Your task to perform on an android device: Open Google Chrome and click the shortcut for Amazon.com Image 0: 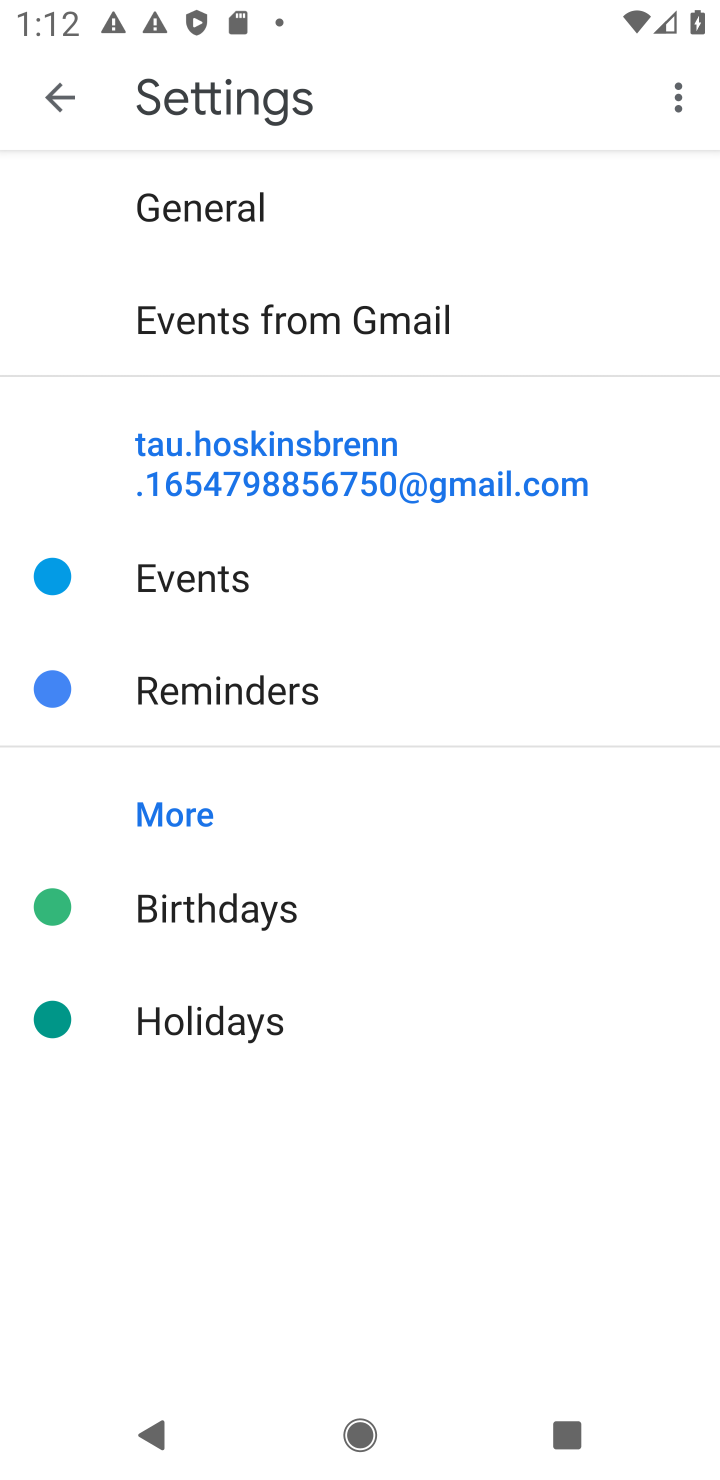
Step 0: press home button
Your task to perform on an android device: Open Google Chrome and click the shortcut for Amazon.com Image 1: 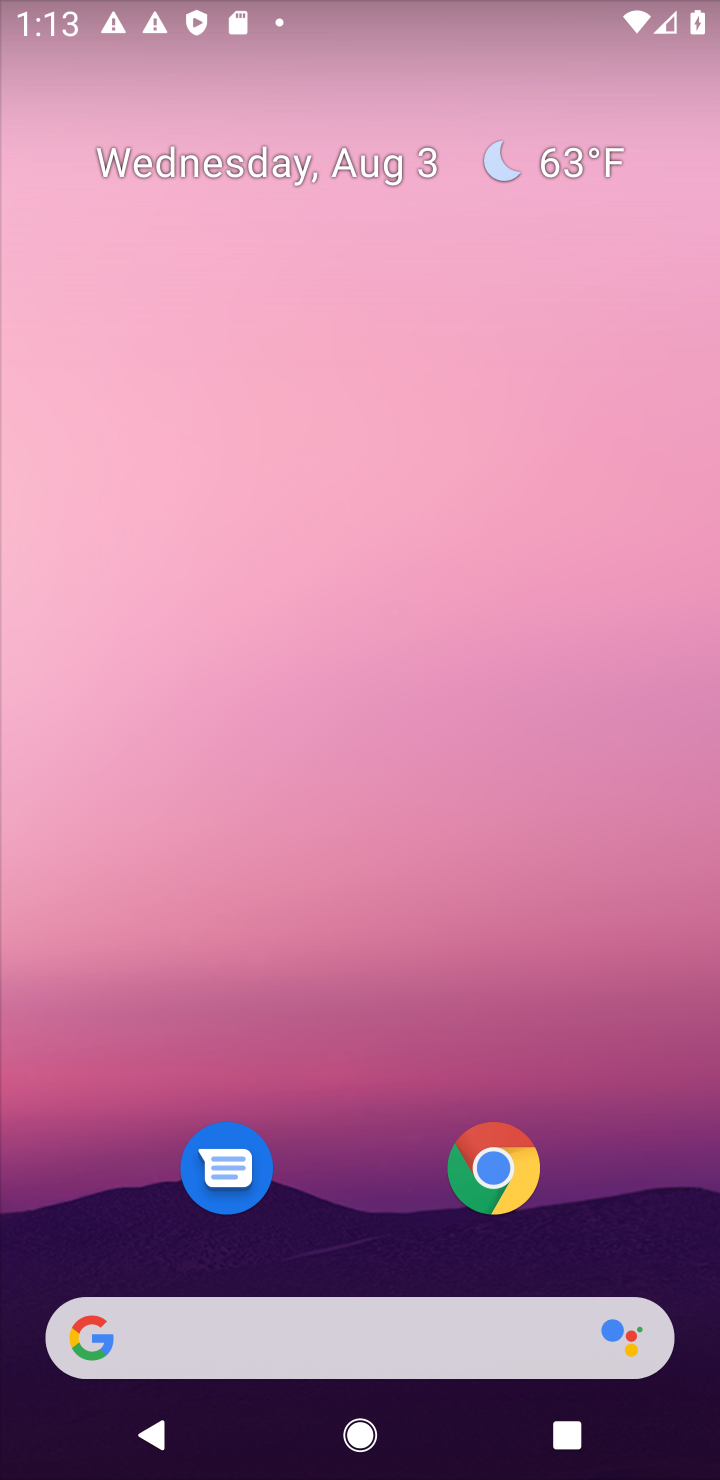
Step 1: click (493, 1174)
Your task to perform on an android device: Open Google Chrome and click the shortcut for Amazon.com Image 2: 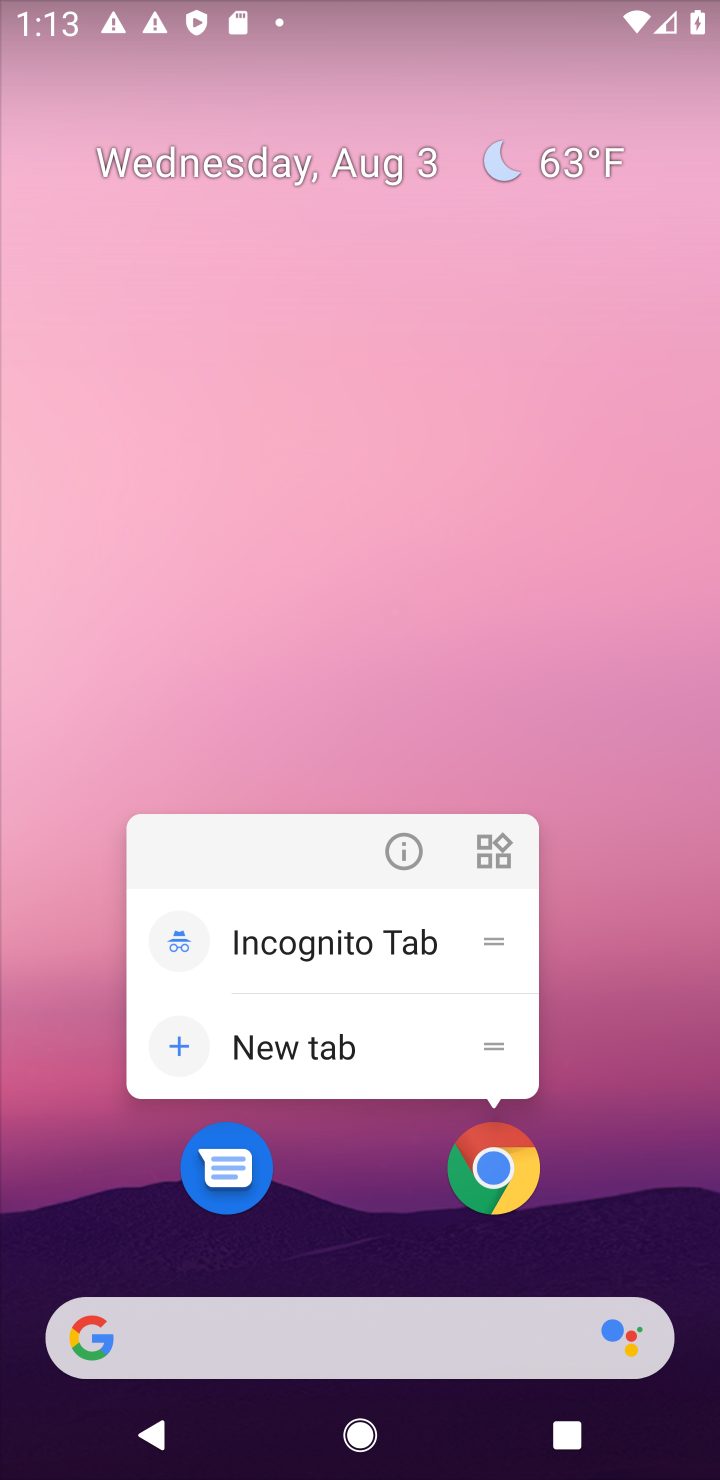
Step 2: click (493, 1174)
Your task to perform on an android device: Open Google Chrome and click the shortcut for Amazon.com Image 3: 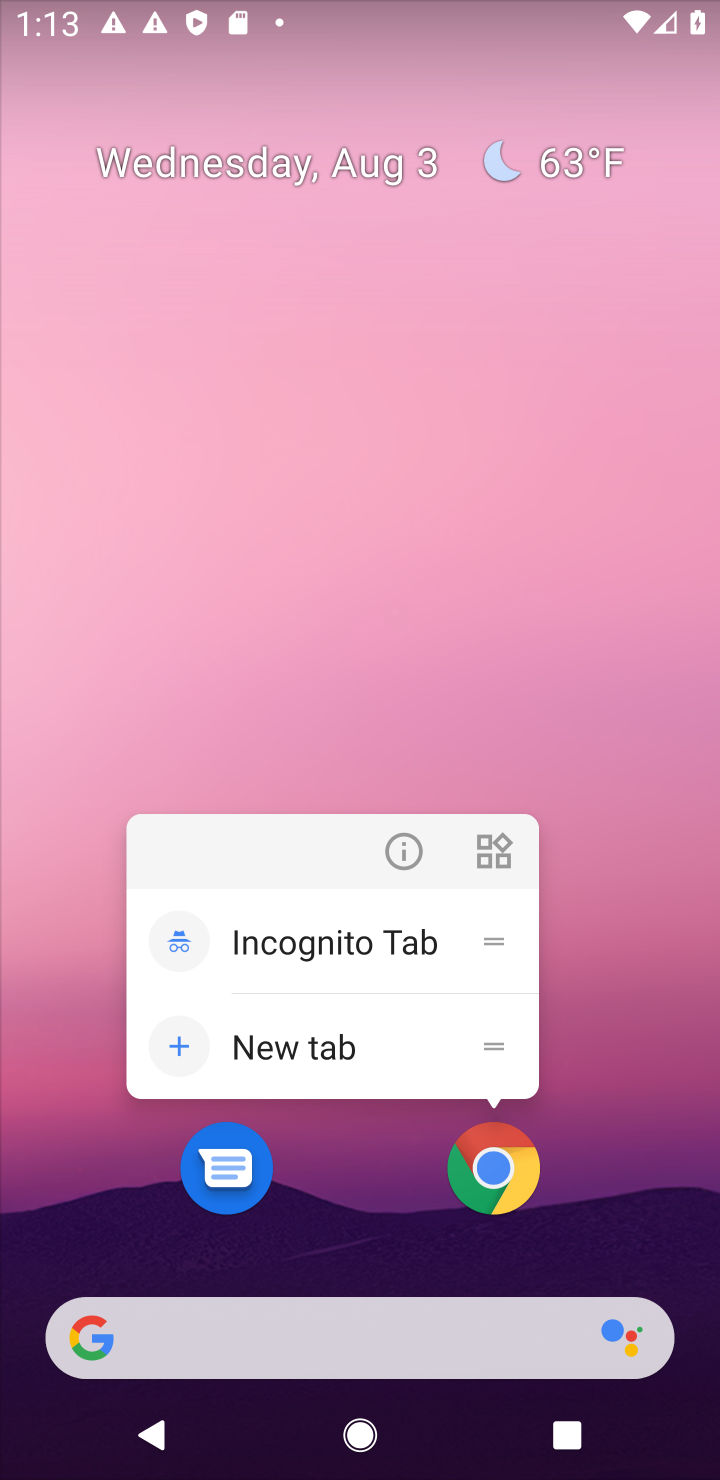
Step 3: click (493, 1168)
Your task to perform on an android device: Open Google Chrome and click the shortcut for Amazon.com Image 4: 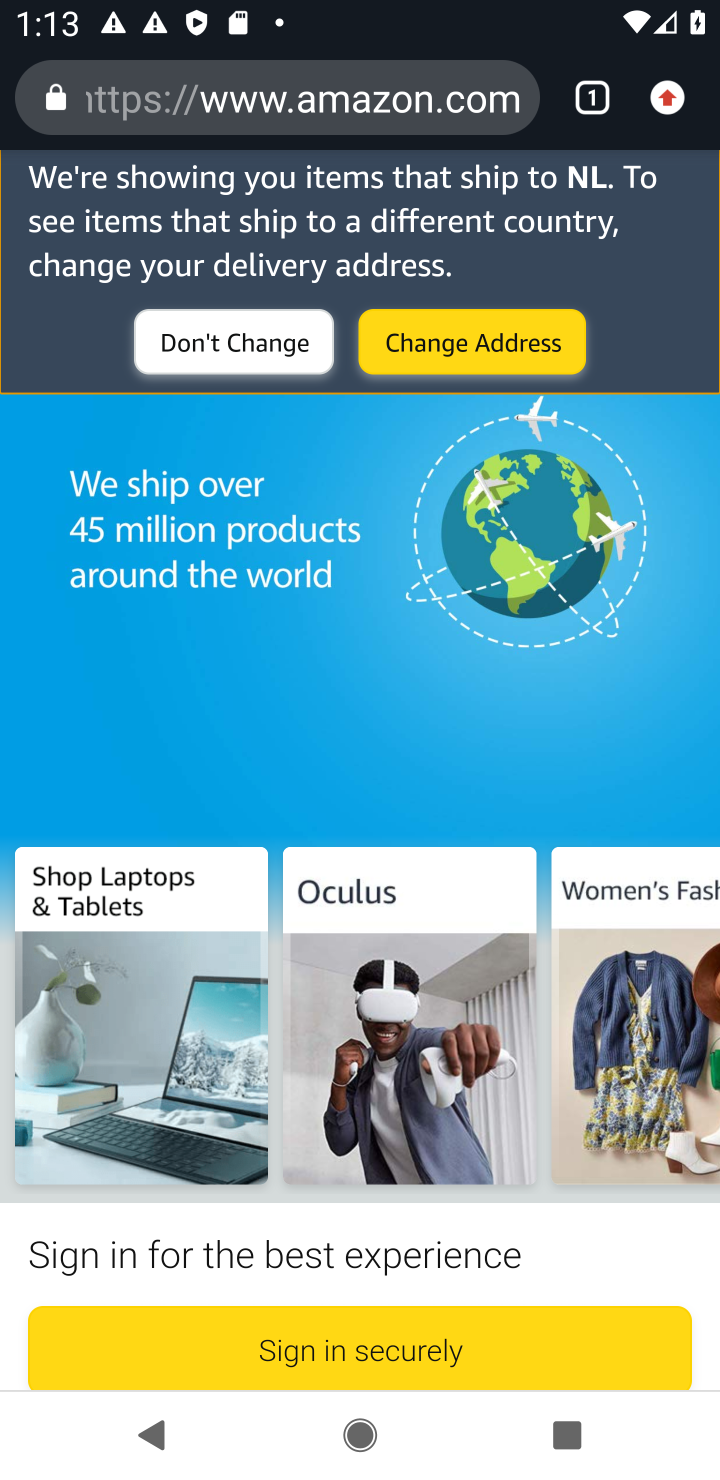
Step 4: click (667, 103)
Your task to perform on an android device: Open Google Chrome and click the shortcut for Amazon.com Image 5: 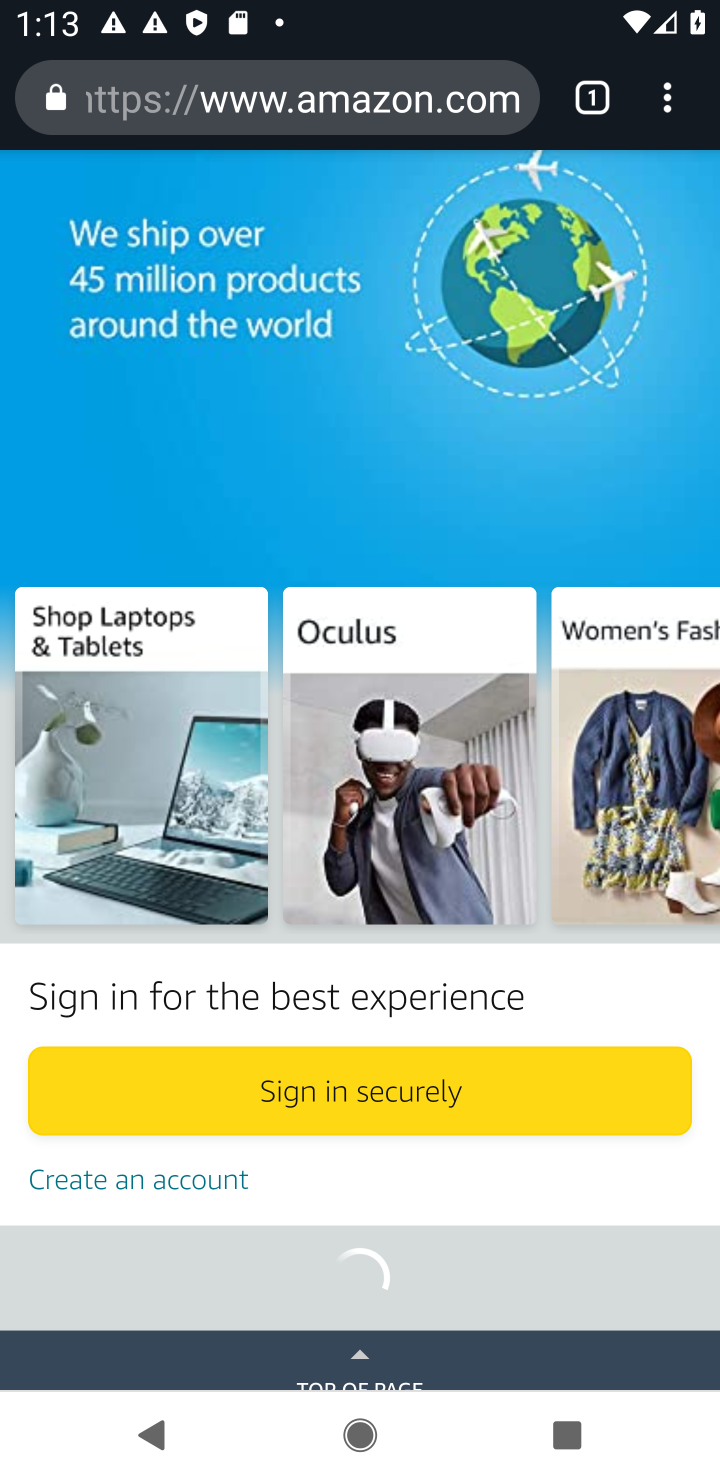
Step 5: click (663, 107)
Your task to perform on an android device: Open Google Chrome and click the shortcut for Amazon.com Image 6: 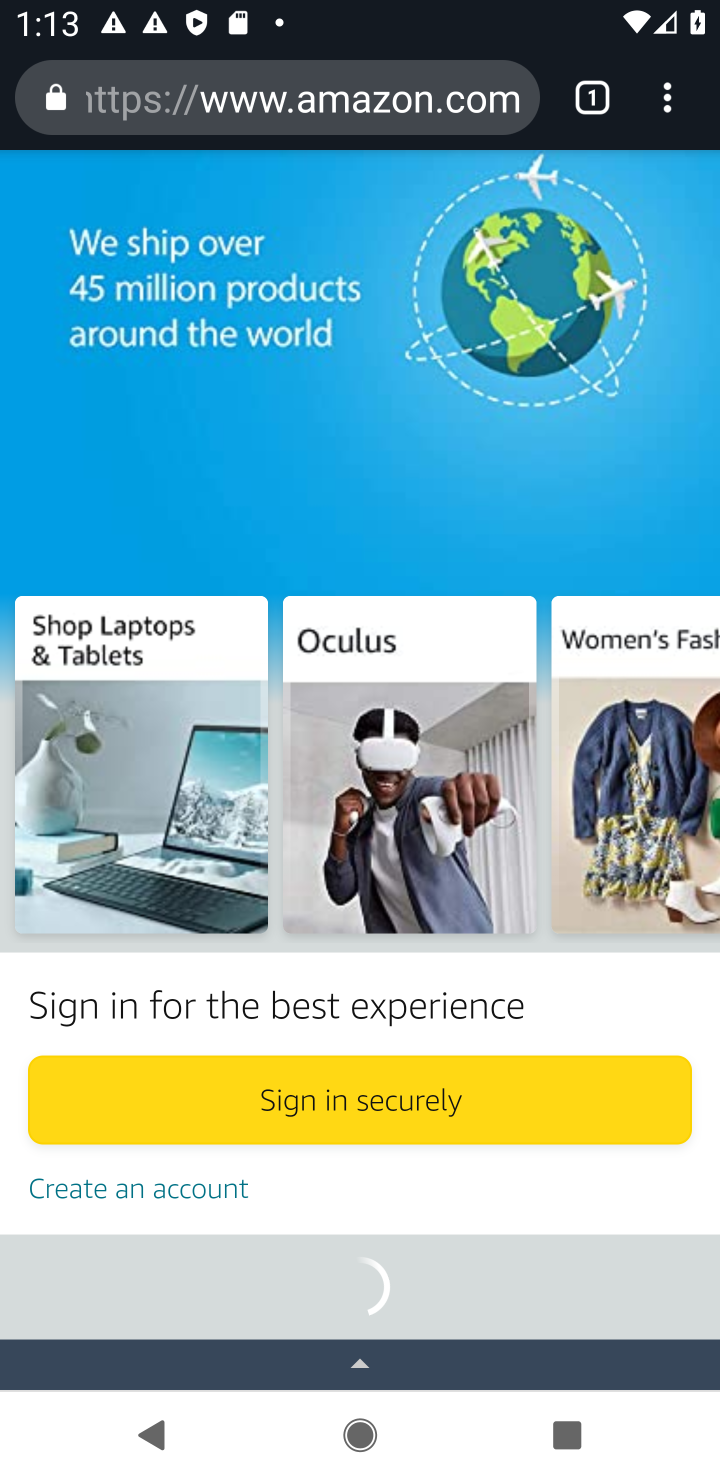
Step 6: click (663, 113)
Your task to perform on an android device: Open Google Chrome and click the shortcut for Amazon.com Image 7: 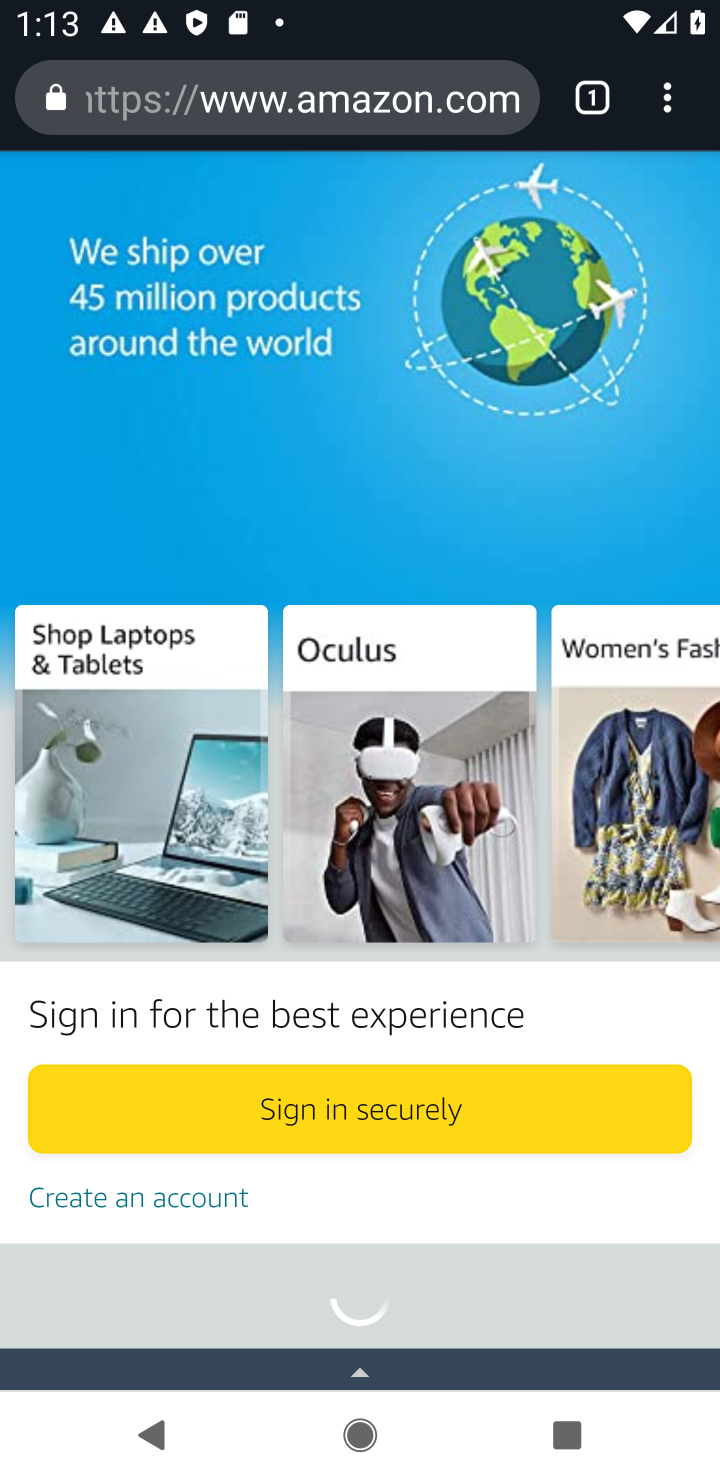
Step 7: click (666, 115)
Your task to perform on an android device: Open Google Chrome and click the shortcut for Amazon.com Image 8: 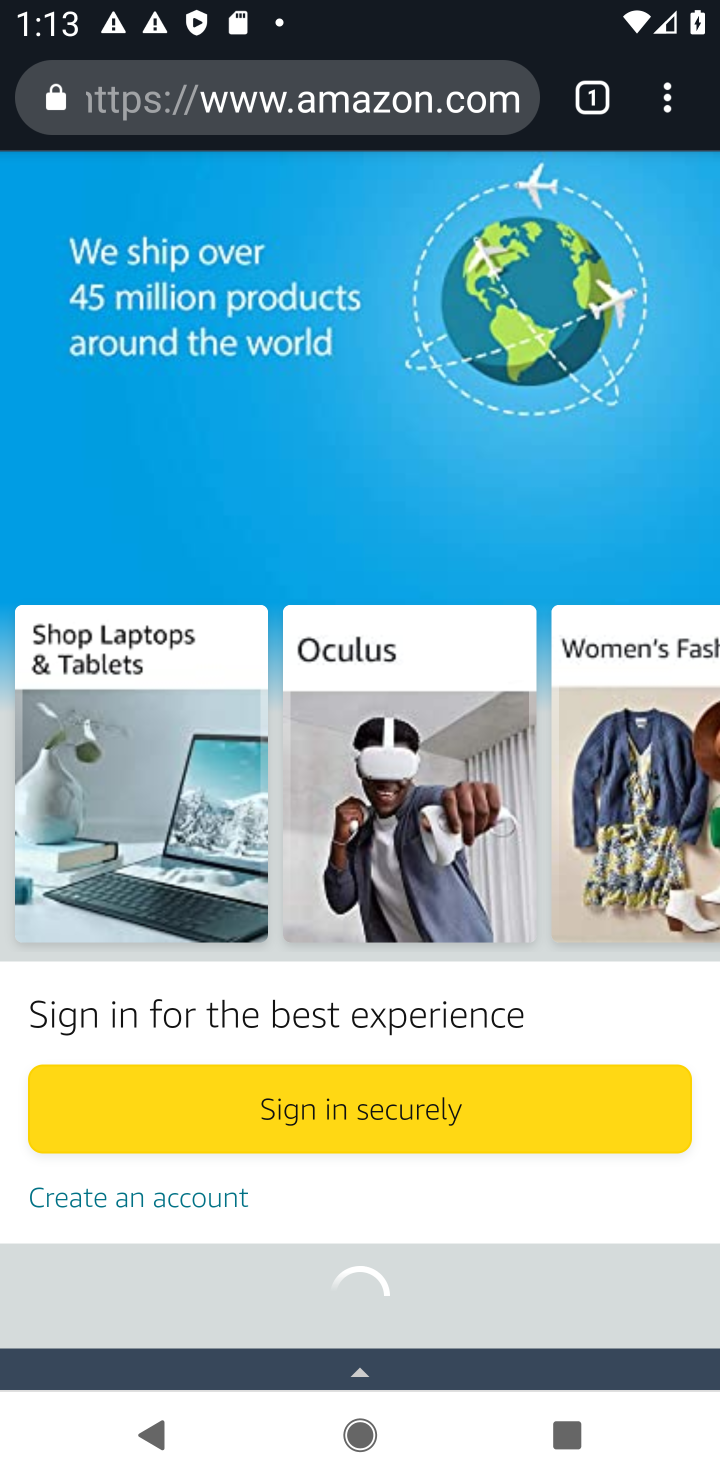
Step 8: click (663, 118)
Your task to perform on an android device: Open Google Chrome and click the shortcut for Amazon.com Image 9: 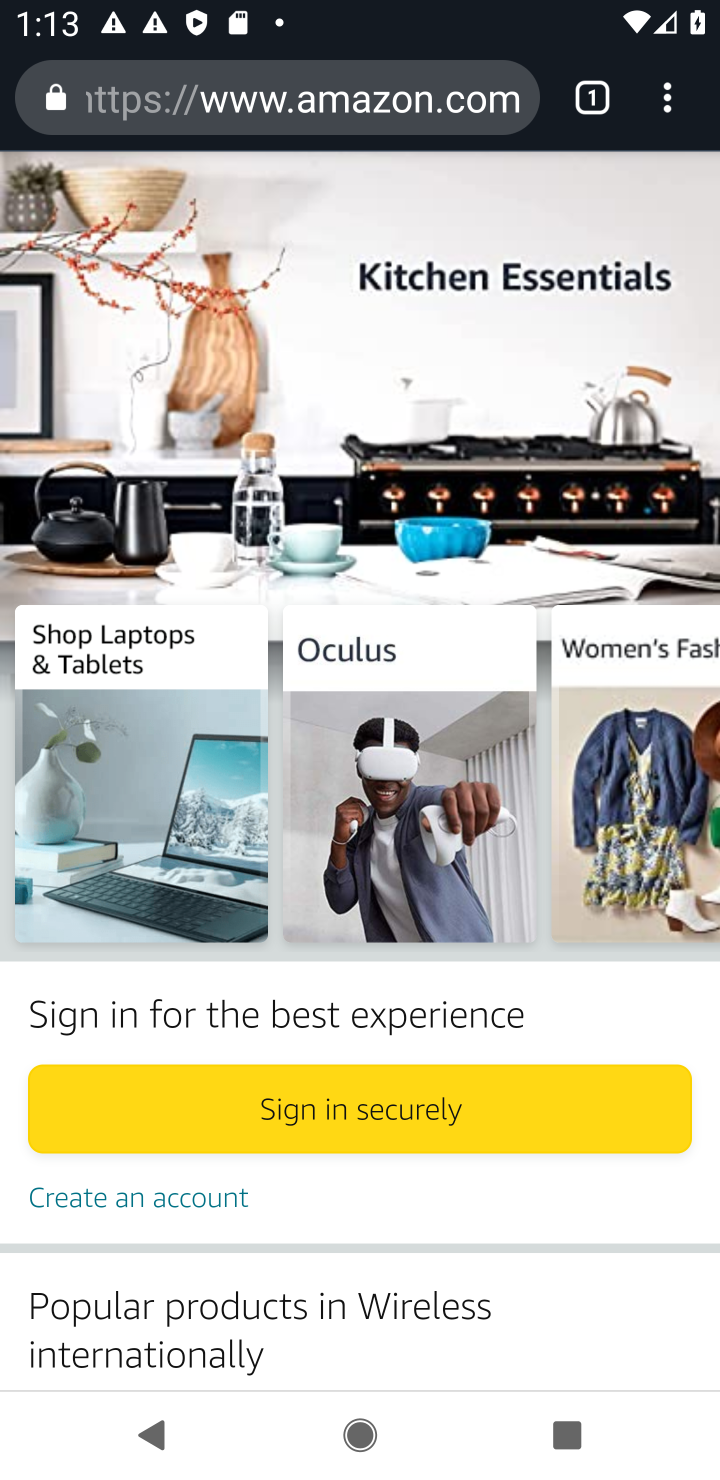
Step 9: click (667, 121)
Your task to perform on an android device: Open Google Chrome and click the shortcut for Amazon.com Image 10: 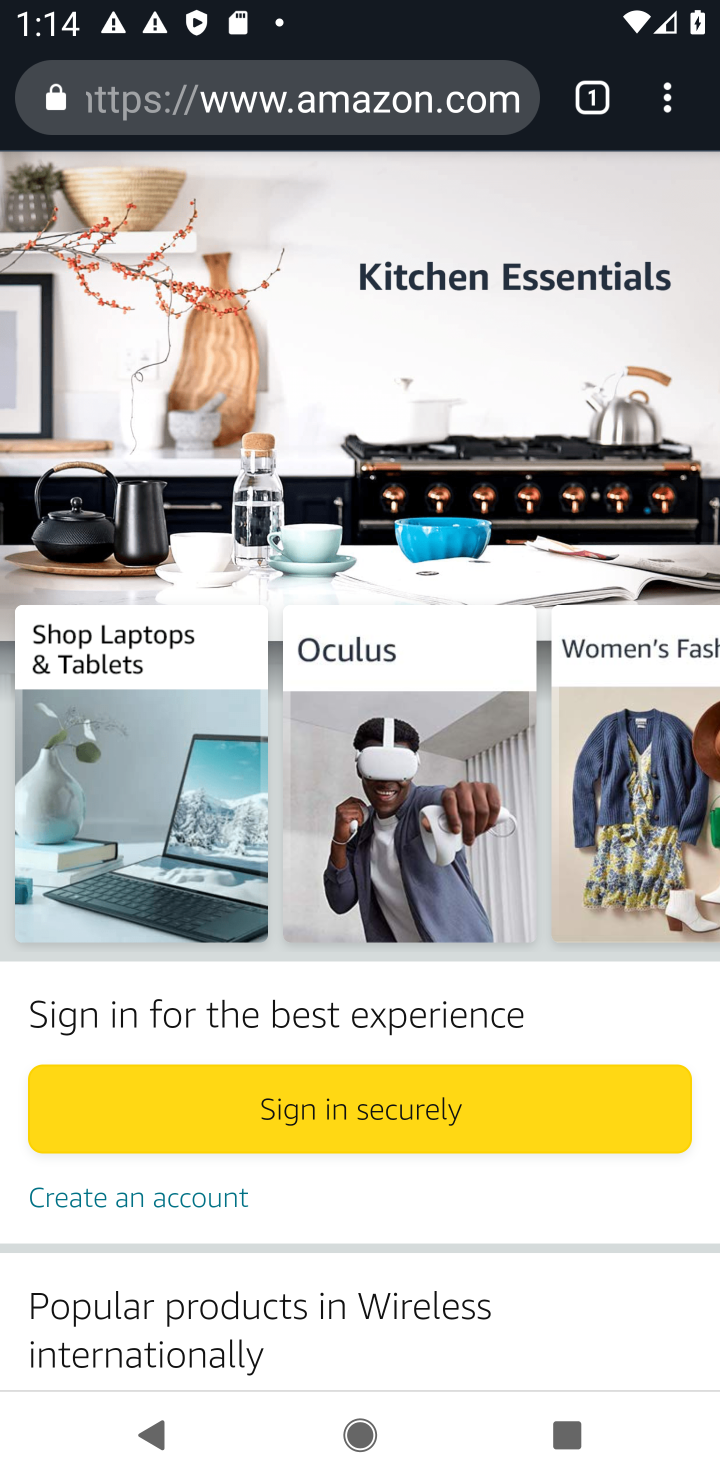
Step 10: click (667, 113)
Your task to perform on an android device: Open Google Chrome and click the shortcut for Amazon.com Image 11: 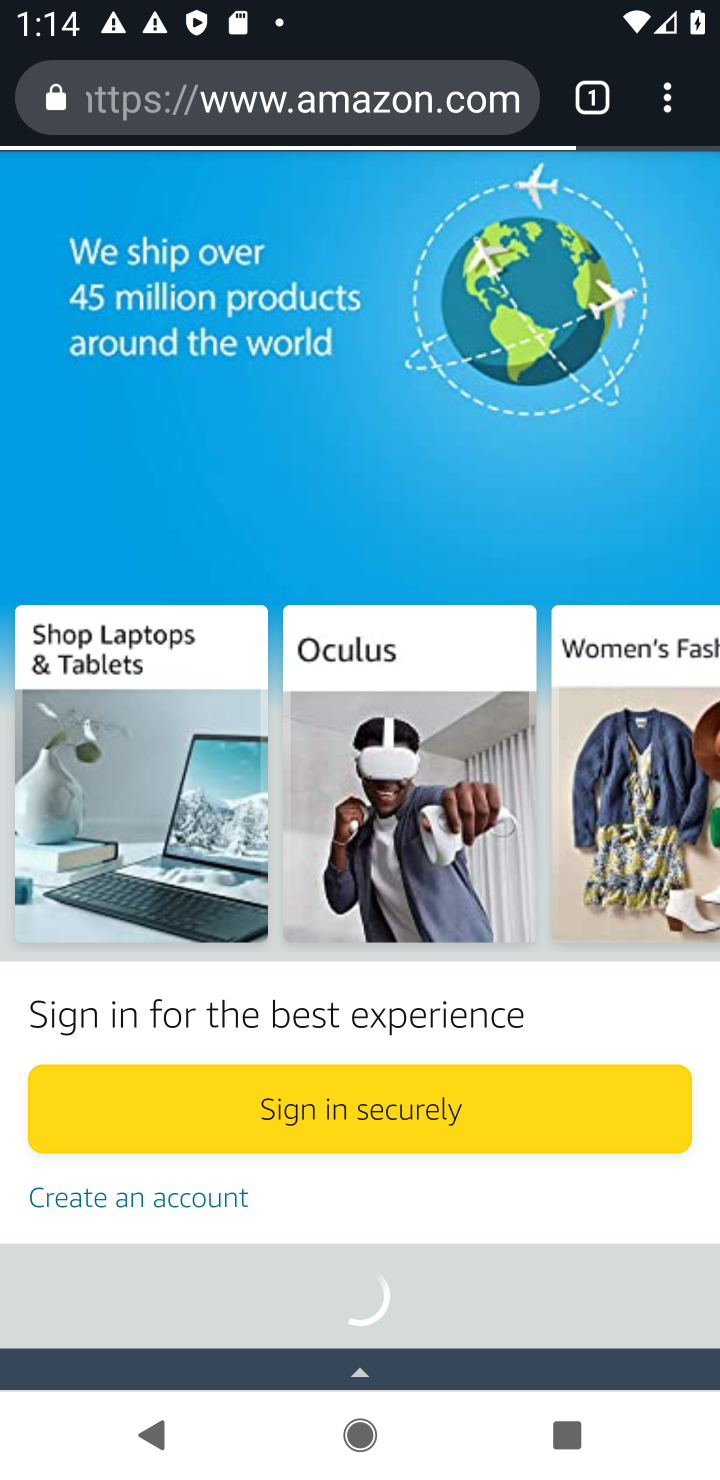
Step 11: click (663, 115)
Your task to perform on an android device: Open Google Chrome and click the shortcut for Amazon.com Image 12: 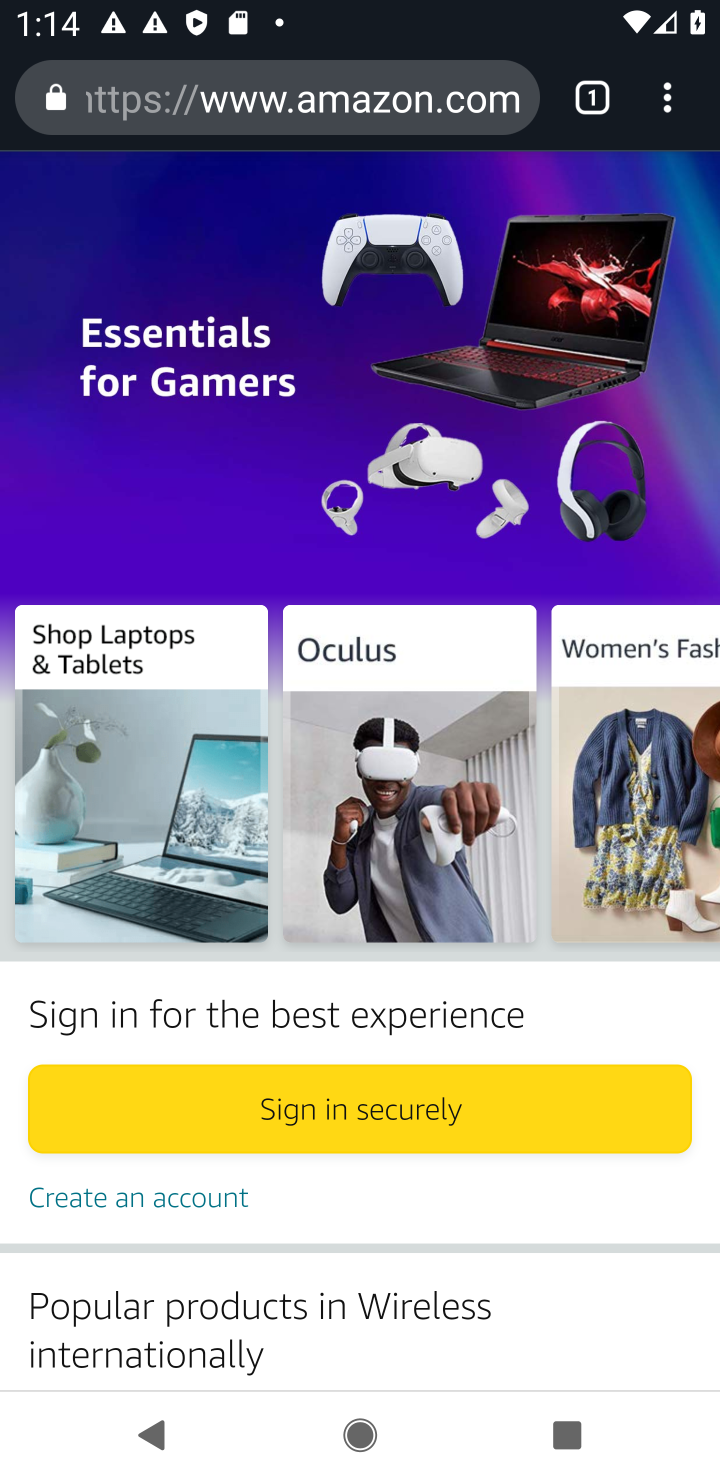
Step 12: task complete